Your task to perform on an android device: Go to calendar. Show me events next week Image 0: 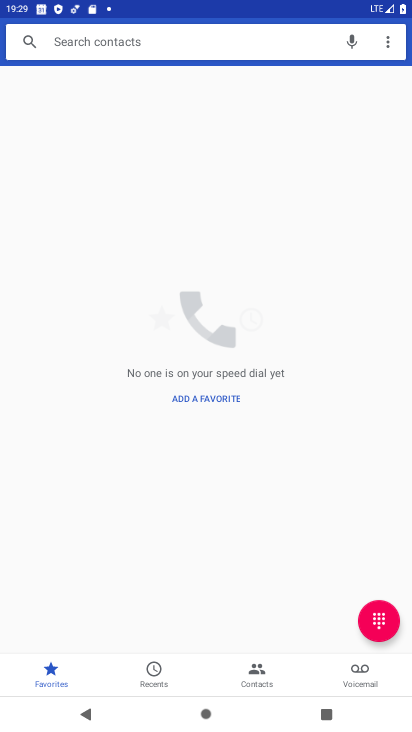
Step 0: press home button
Your task to perform on an android device: Go to calendar. Show me events next week Image 1: 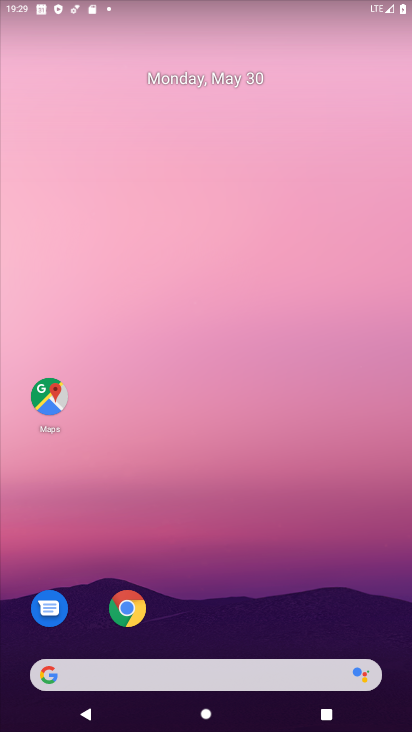
Step 1: drag from (216, 590) to (272, 324)
Your task to perform on an android device: Go to calendar. Show me events next week Image 2: 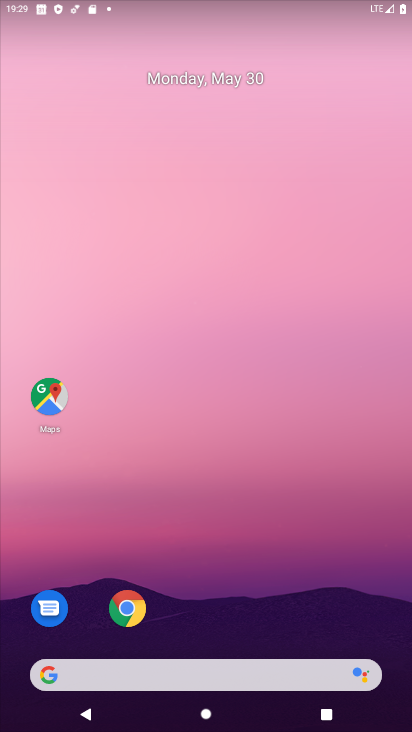
Step 2: drag from (214, 622) to (225, 284)
Your task to perform on an android device: Go to calendar. Show me events next week Image 3: 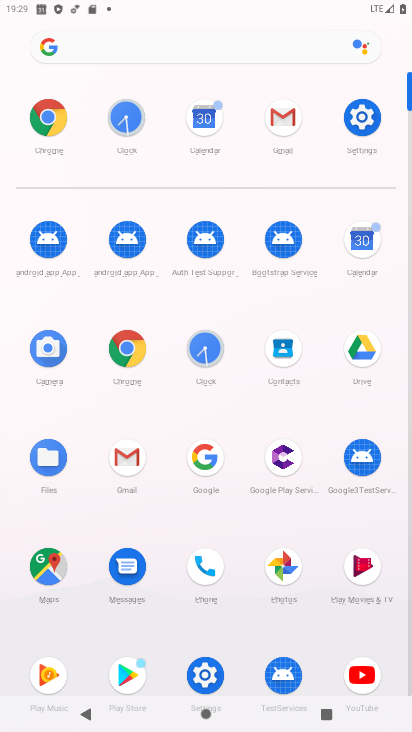
Step 3: click (361, 248)
Your task to perform on an android device: Go to calendar. Show me events next week Image 4: 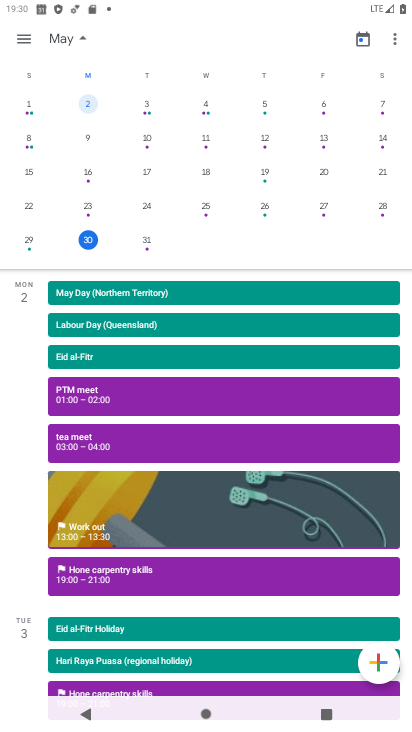
Step 4: drag from (373, 227) to (25, 208)
Your task to perform on an android device: Go to calendar. Show me events next week Image 5: 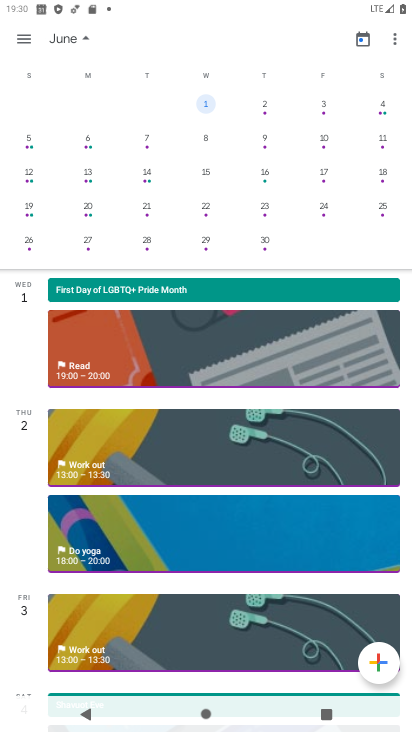
Step 5: click (10, 136)
Your task to perform on an android device: Go to calendar. Show me events next week Image 6: 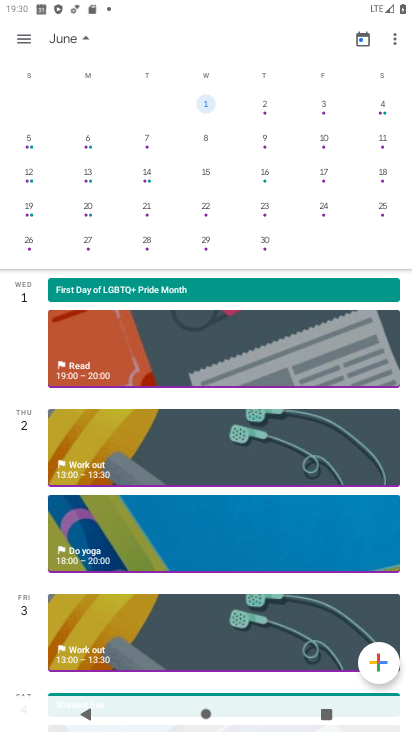
Step 6: click (94, 140)
Your task to perform on an android device: Go to calendar. Show me events next week Image 7: 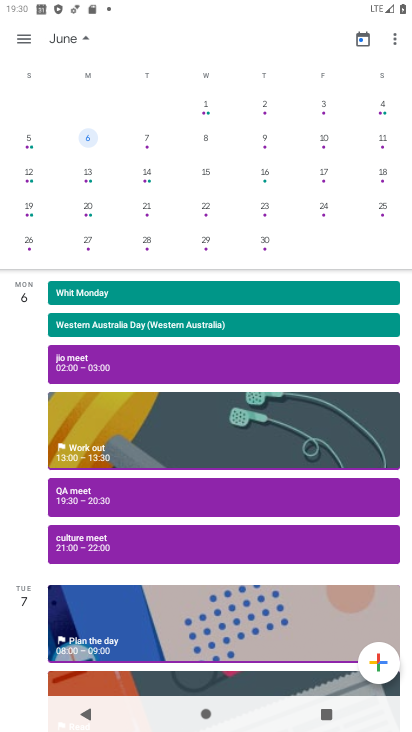
Step 7: click (156, 141)
Your task to perform on an android device: Go to calendar. Show me events next week Image 8: 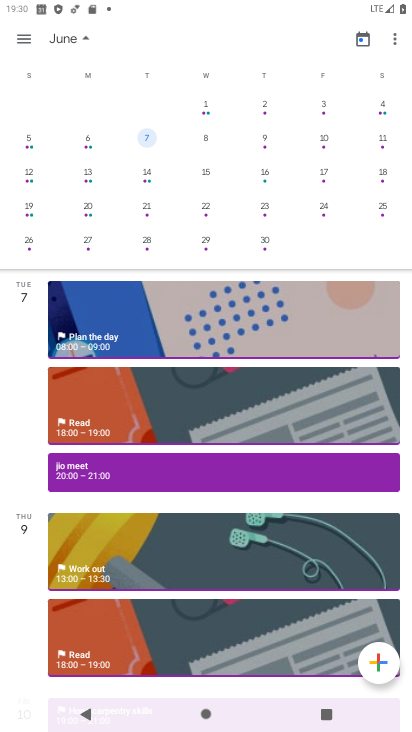
Step 8: click (215, 135)
Your task to perform on an android device: Go to calendar. Show me events next week Image 9: 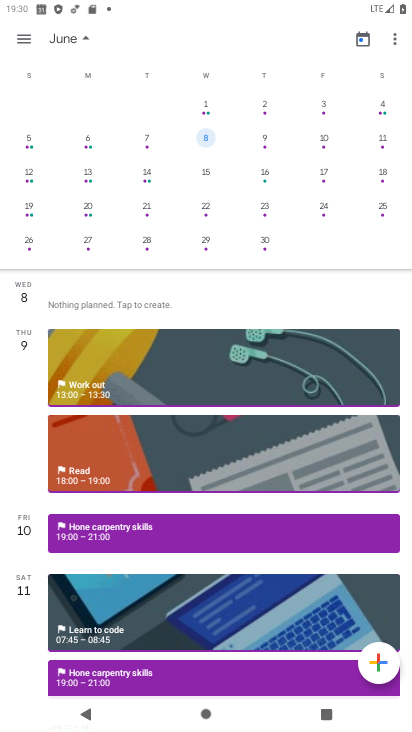
Step 9: click (262, 135)
Your task to perform on an android device: Go to calendar. Show me events next week Image 10: 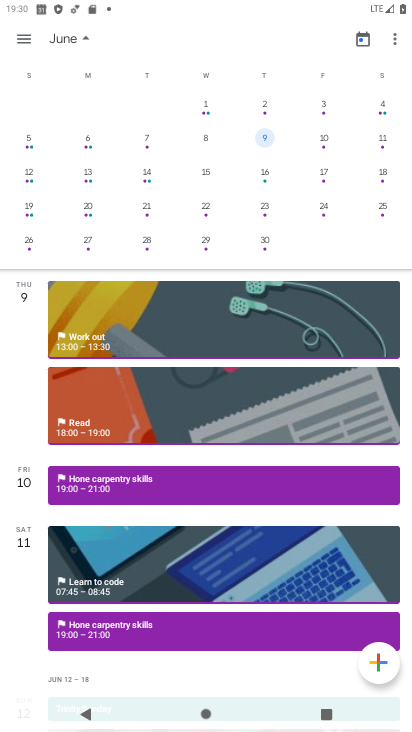
Step 10: click (331, 135)
Your task to perform on an android device: Go to calendar. Show me events next week Image 11: 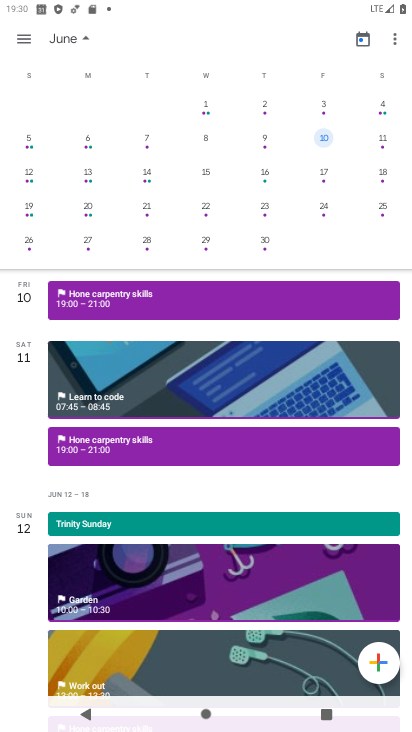
Step 11: click (376, 140)
Your task to perform on an android device: Go to calendar. Show me events next week Image 12: 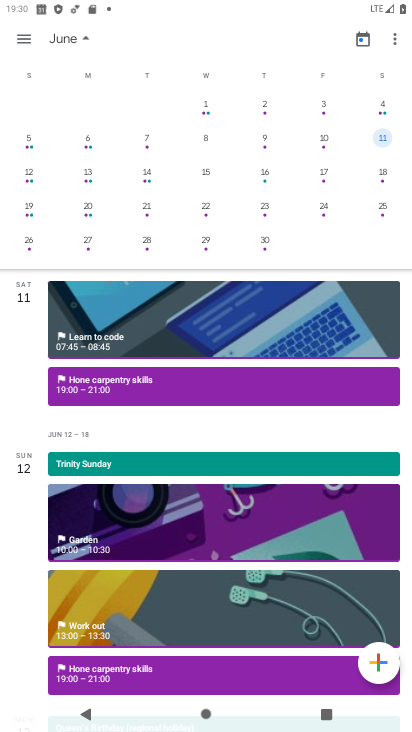
Step 12: task complete